Your task to perform on an android device: Go to internet settings Image 0: 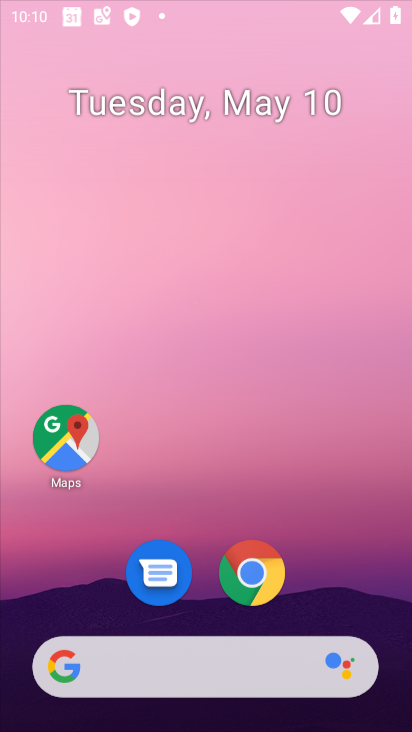
Step 0: click (160, 115)
Your task to perform on an android device: Go to internet settings Image 1: 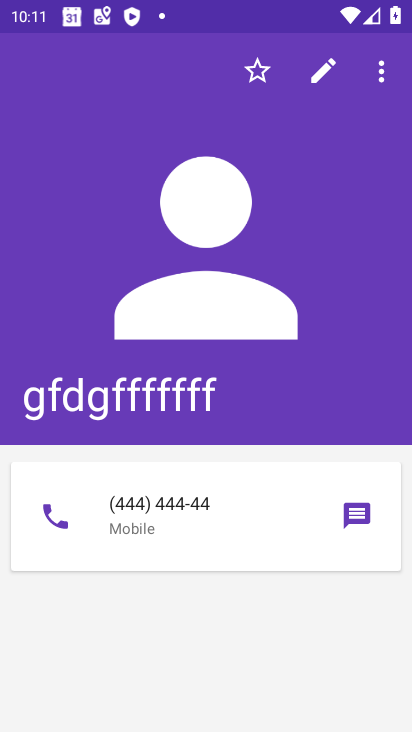
Step 1: press home button
Your task to perform on an android device: Go to internet settings Image 2: 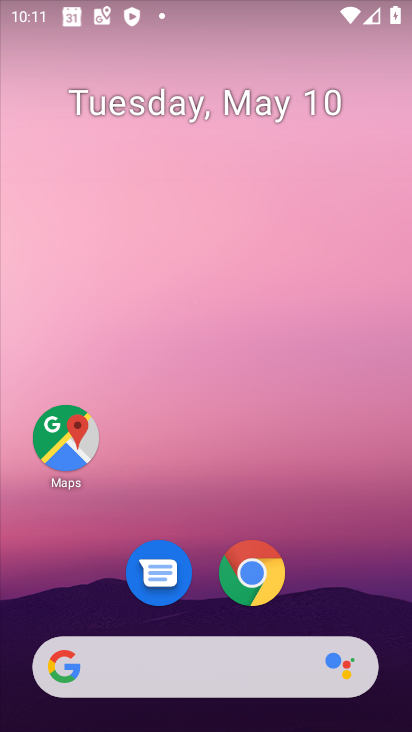
Step 2: drag from (298, 477) to (170, 3)
Your task to perform on an android device: Go to internet settings Image 3: 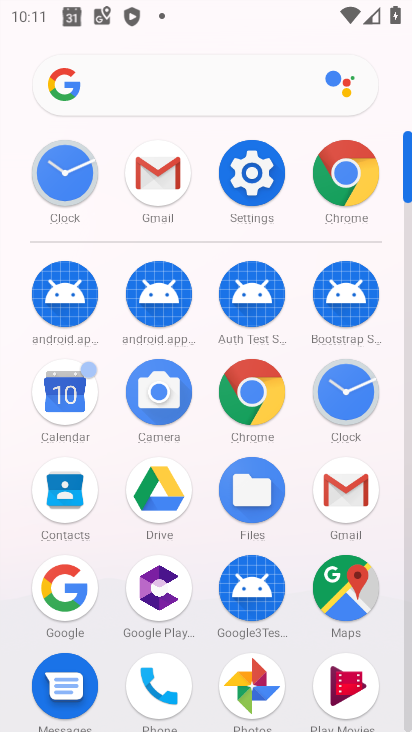
Step 3: click (251, 168)
Your task to perform on an android device: Go to internet settings Image 4: 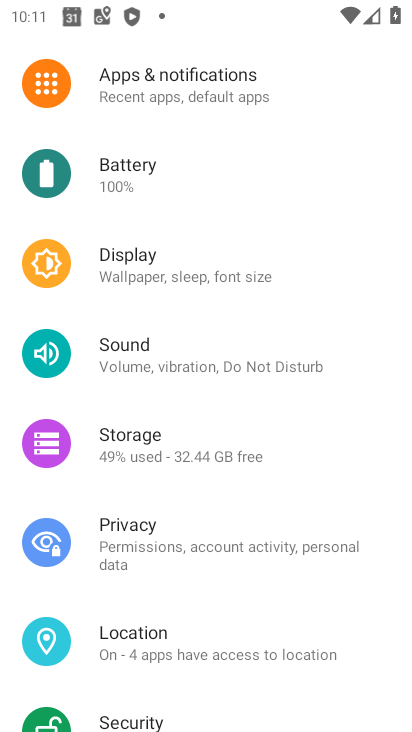
Step 4: drag from (159, 206) to (182, 498)
Your task to perform on an android device: Go to internet settings Image 5: 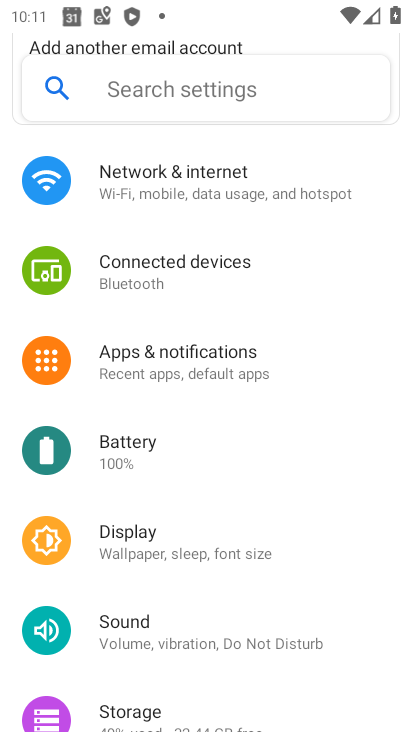
Step 5: click (159, 179)
Your task to perform on an android device: Go to internet settings Image 6: 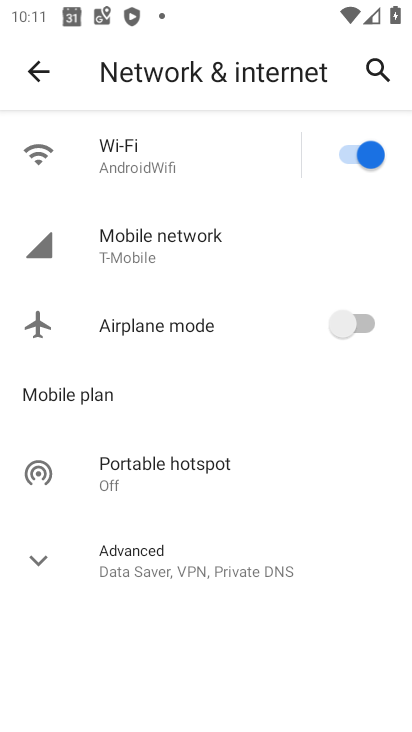
Step 6: task complete